Your task to perform on an android device: turn pop-ups off in chrome Image 0: 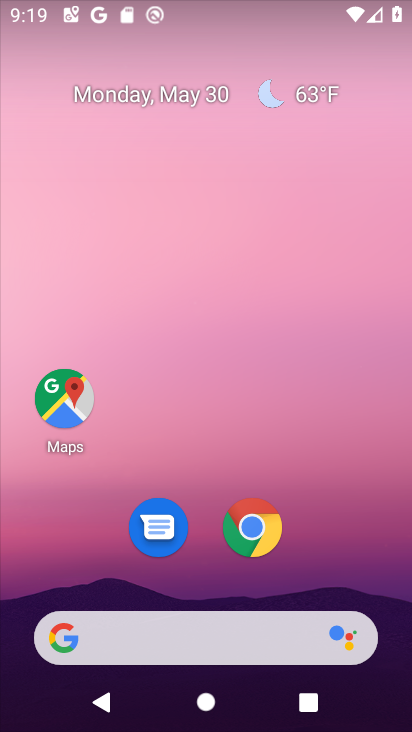
Step 0: click (243, 532)
Your task to perform on an android device: turn pop-ups off in chrome Image 1: 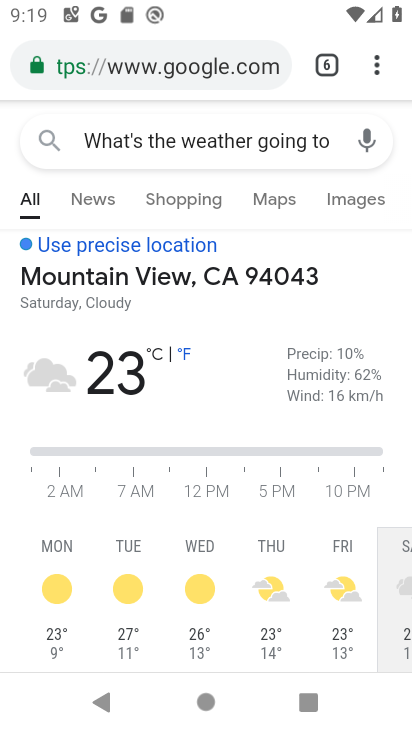
Step 1: click (378, 63)
Your task to perform on an android device: turn pop-ups off in chrome Image 2: 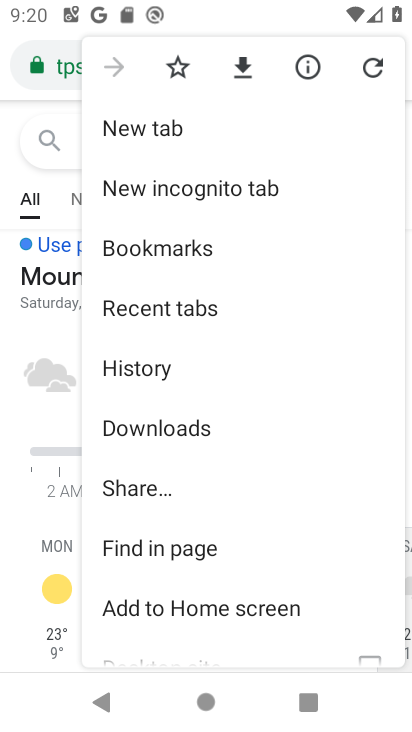
Step 2: drag from (169, 473) to (205, 221)
Your task to perform on an android device: turn pop-ups off in chrome Image 3: 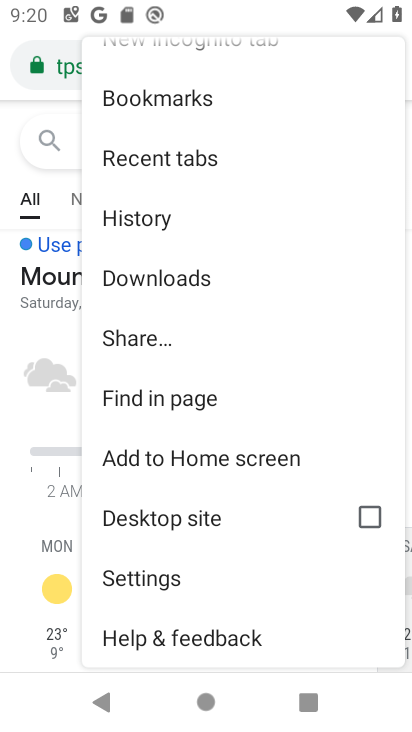
Step 3: click (142, 586)
Your task to perform on an android device: turn pop-ups off in chrome Image 4: 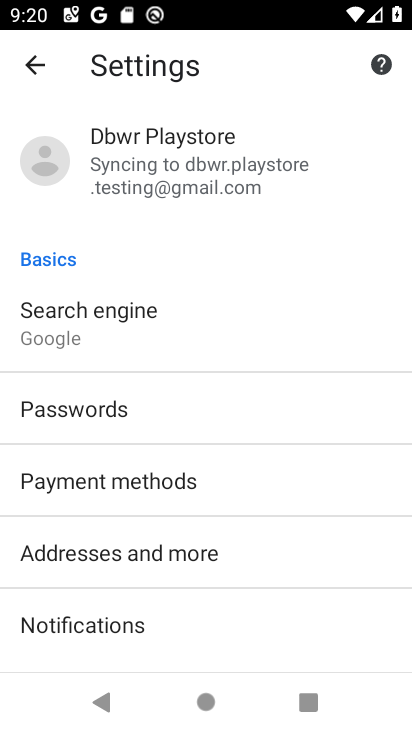
Step 4: drag from (196, 515) to (225, 307)
Your task to perform on an android device: turn pop-ups off in chrome Image 5: 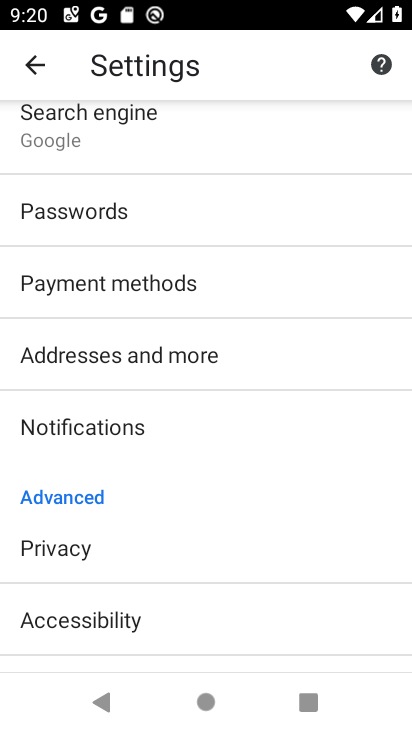
Step 5: drag from (174, 624) to (226, 297)
Your task to perform on an android device: turn pop-ups off in chrome Image 6: 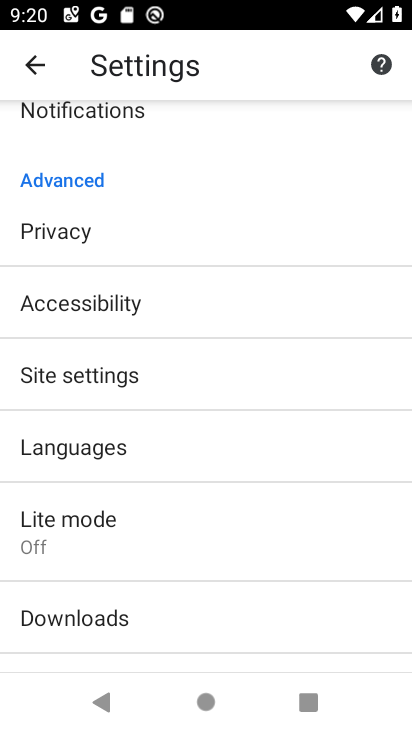
Step 6: click (145, 357)
Your task to perform on an android device: turn pop-ups off in chrome Image 7: 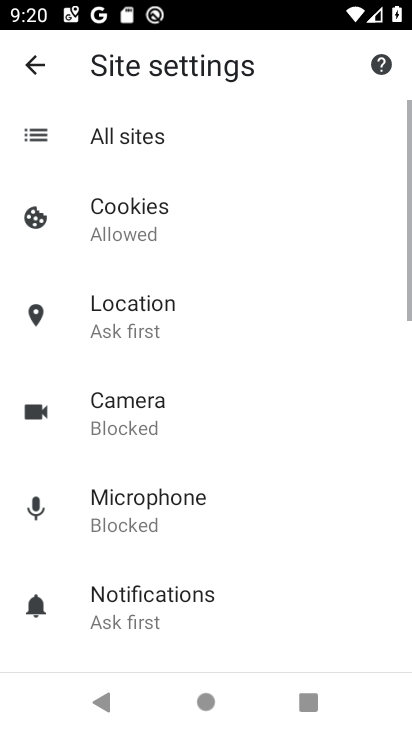
Step 7: drag from (176, 556) to (171, 298)
Your task to perform on an android device: turn pop-ups off in chrome Image 8: 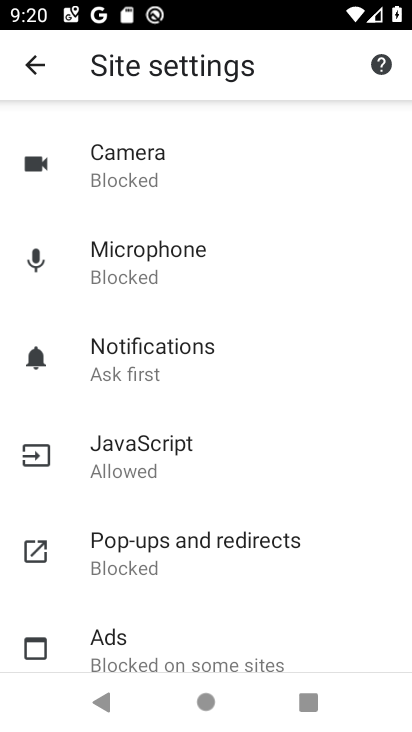
Step 8: click (140, 559)
Your task to perform on an android device: turn pop-ups off in chrome Image 9: 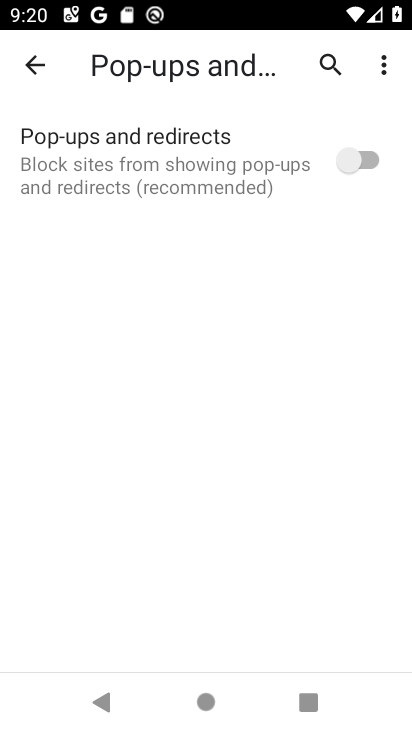
Step 9: click (360, 161)
Your task to perform on an android device: turn pop-ups off in chrome Image 10: 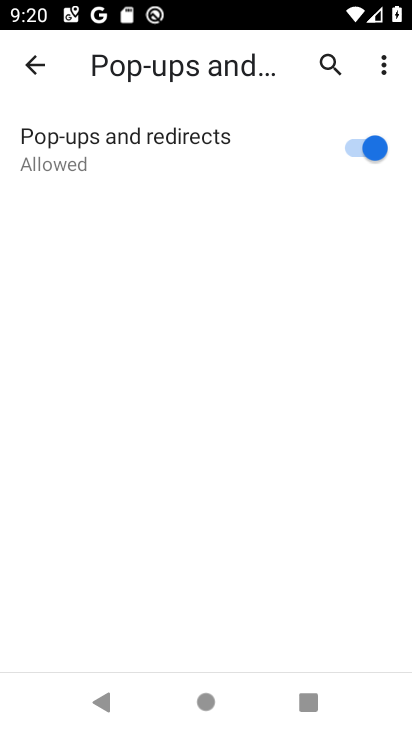
Step 10: task complete